Your task to perform on an android device: turn off wifi Image 0: 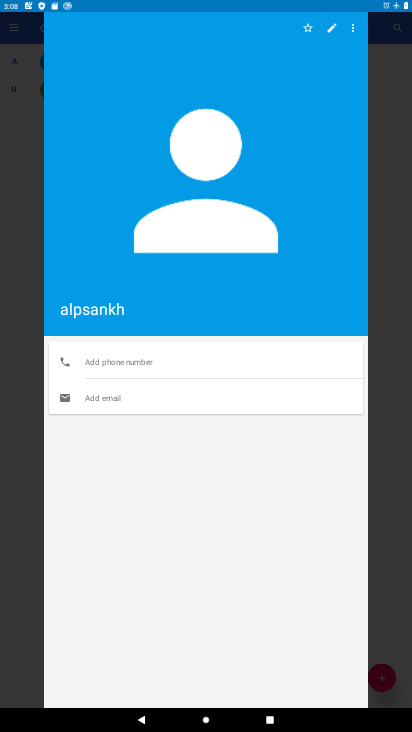
Step 0: press home button
Your task to perform on an android device: turn off wifi Image 1: 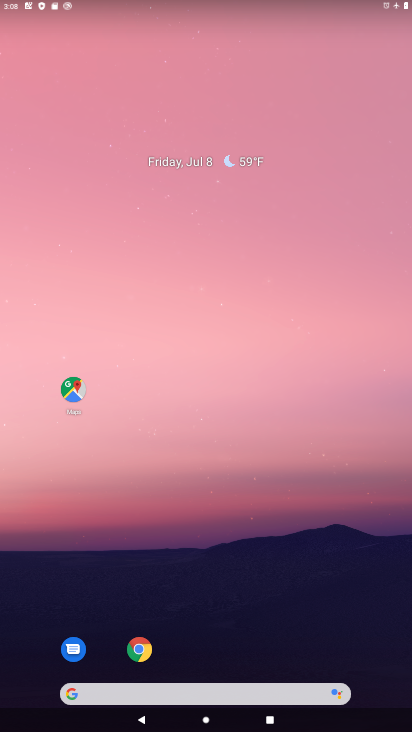
Step 1: drag from (303, 578) to (196, 179)
Your task to perform on an android device: turn off wifi Image 2: 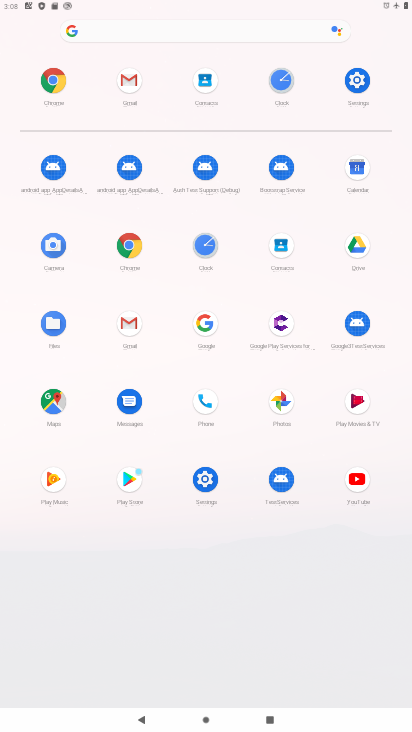
Step 2: click (358, 85)
Your task to perform on an android device: turn off wifi Image 3: 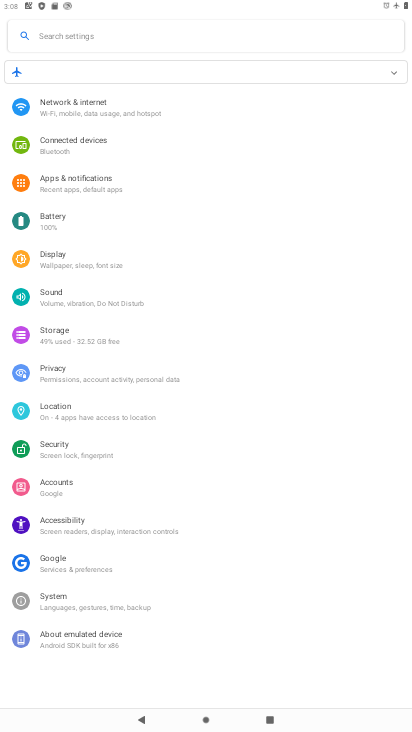
Step 3: click (104, 111)
Your task to perform on an android device: turn off wifi Image 4: 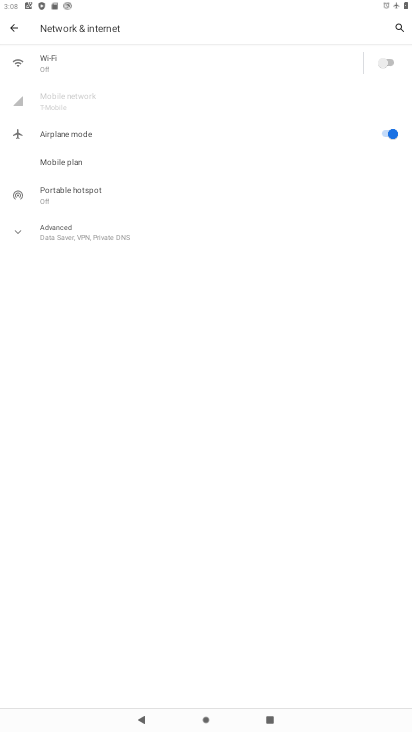
Step 4: task complete